Your task to perform on an android device: delete the emails in spam in the gmail app Image 0: 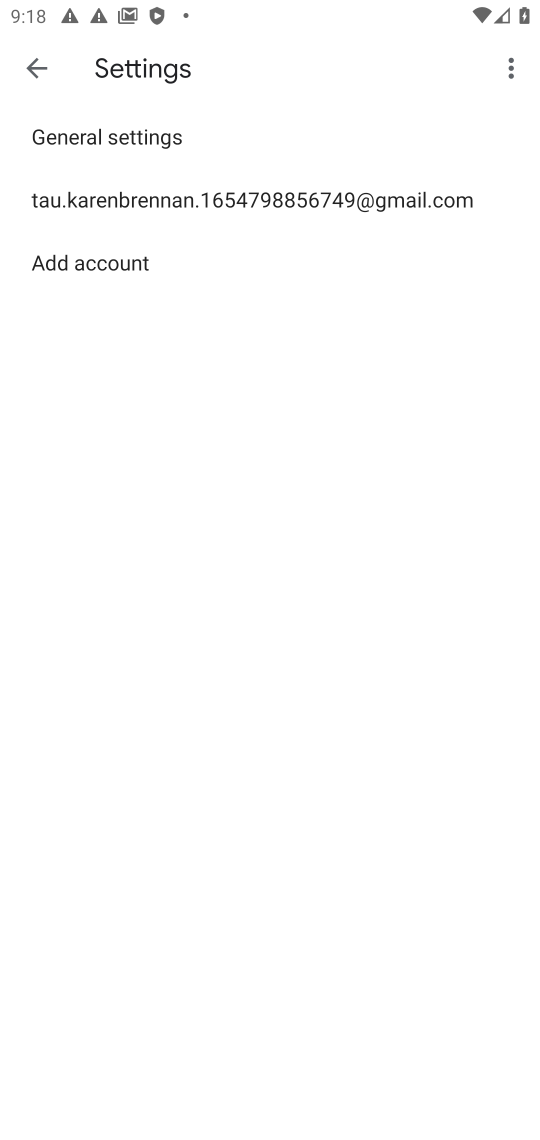
Step 0: press home button
Your task to perform on an android device: delete the emails in spam in the gmail app Image 1: 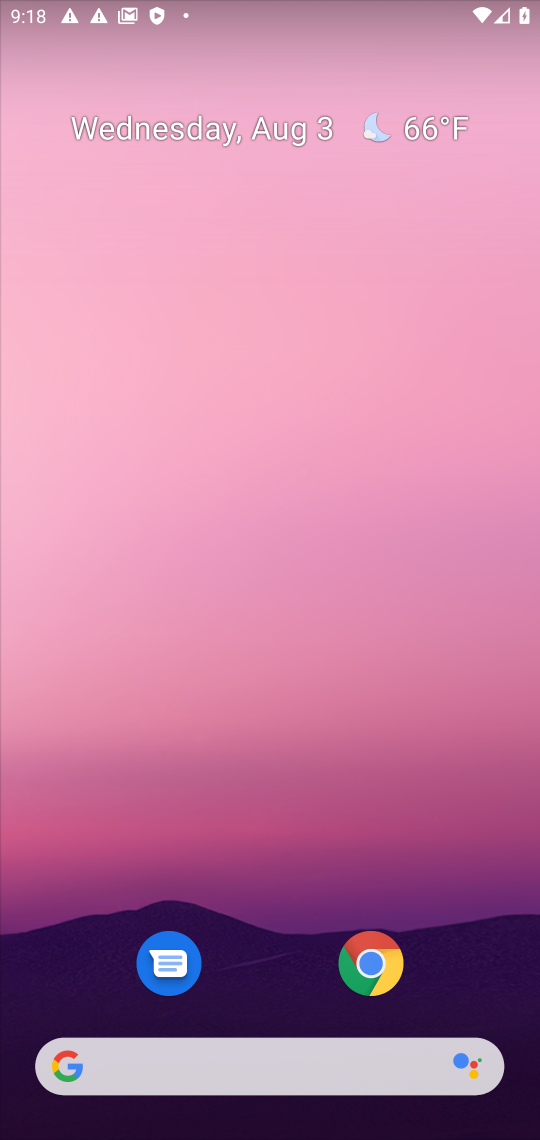
Step 1: drag from (306, 1011) to (289, 254)
Your task to perform on an android device: delete the emails in spam in the gmail app Image 2: 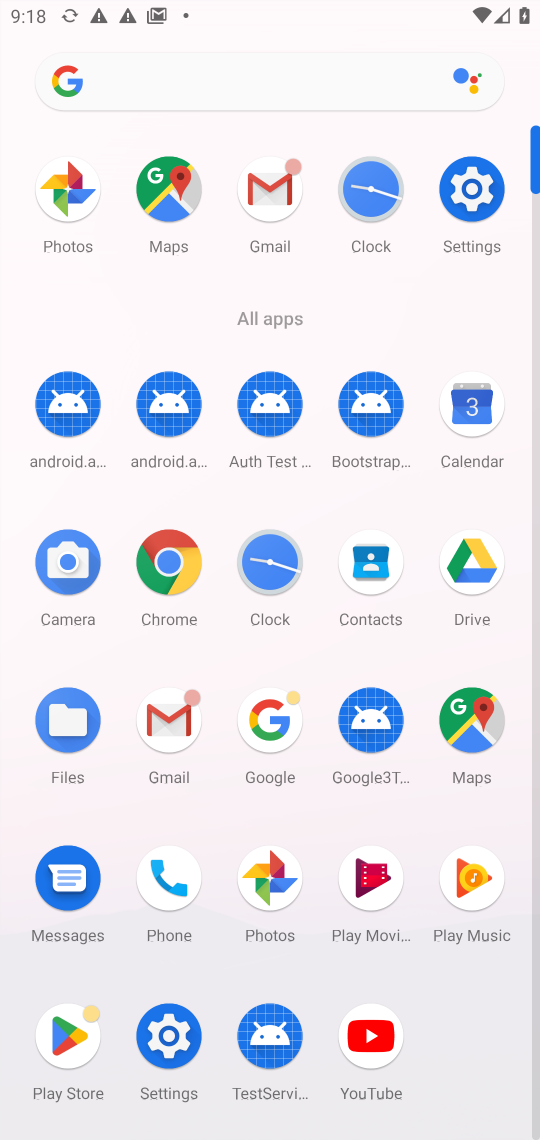
Step 2: click (272, 188)
Your task to perform on an android device: delete the emails in spam in the gmail app Image 3: 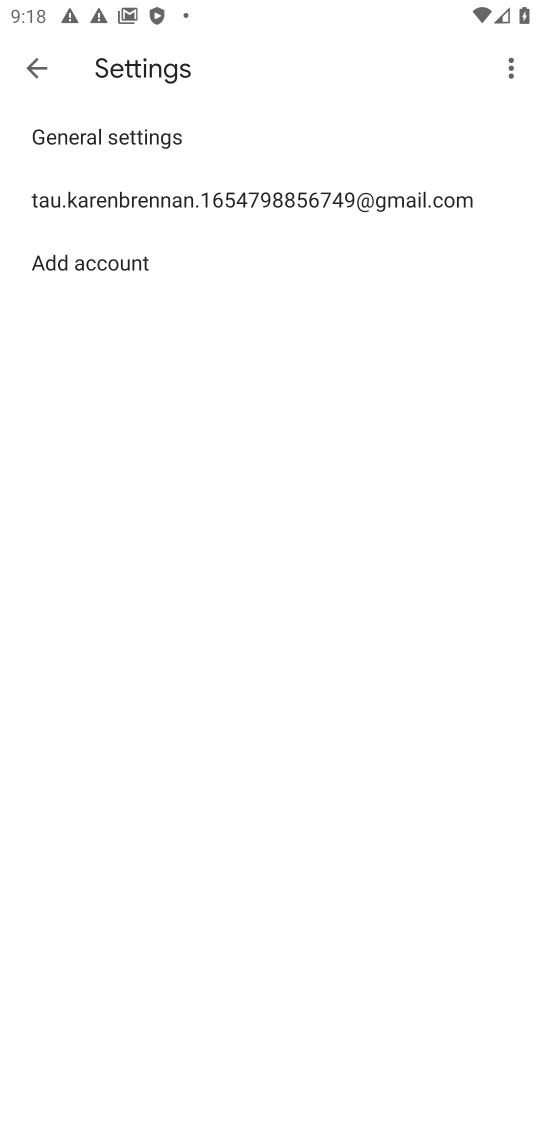
Step 3: click (35, 59)
Your task to perform on an android device: delete the emails in spam in the gmail app Image 4: 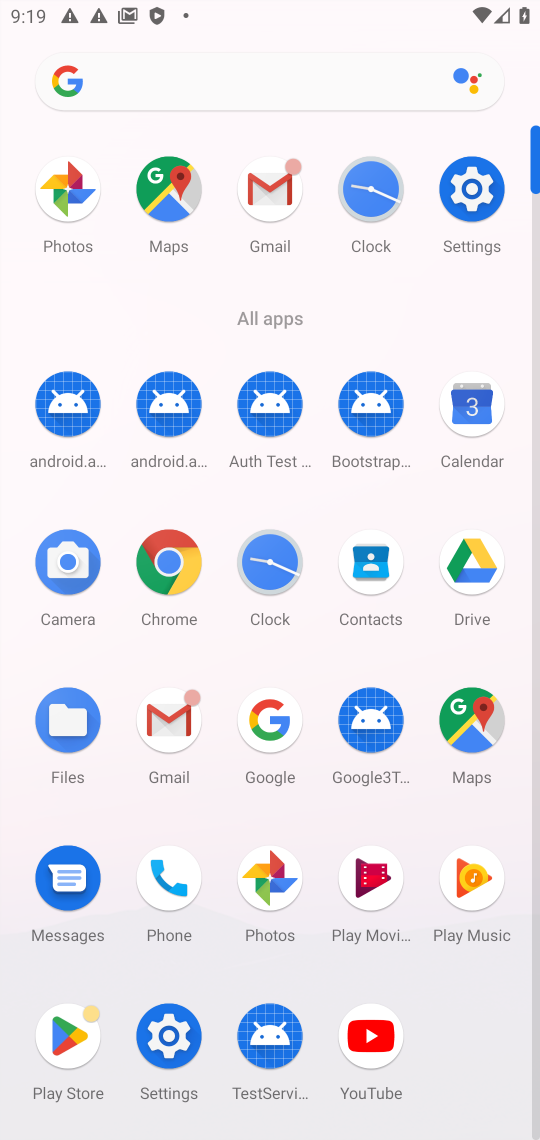
Step 4: click (168, 731)
Your task to perform on an android device: delete the emails in spam in the gmail app Image 5: 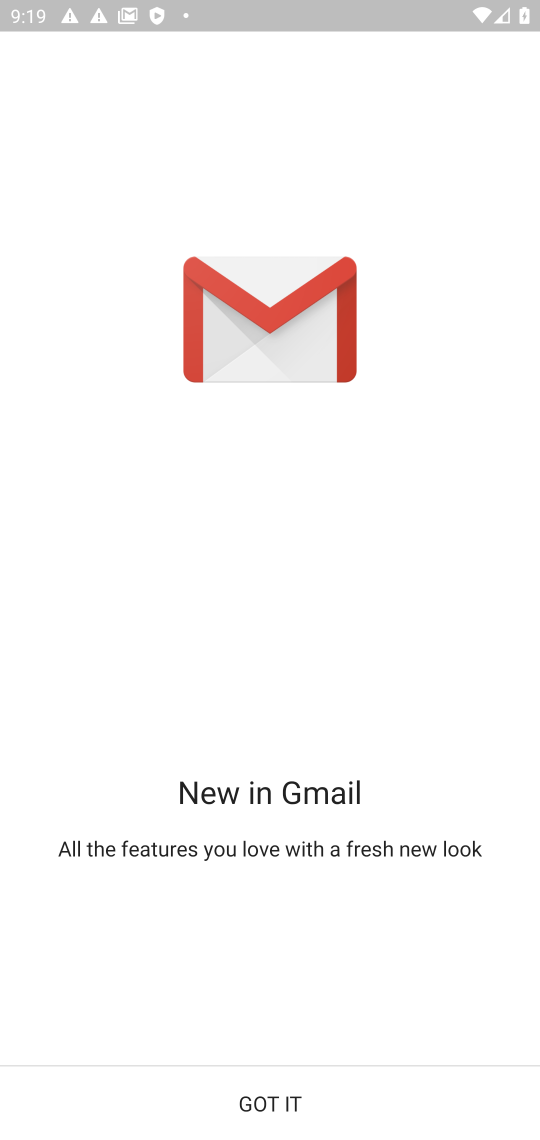
Step 5: click (316, 1117)
Your task to perform on an android device: delete the emails in spam in the gmail app Image 6: 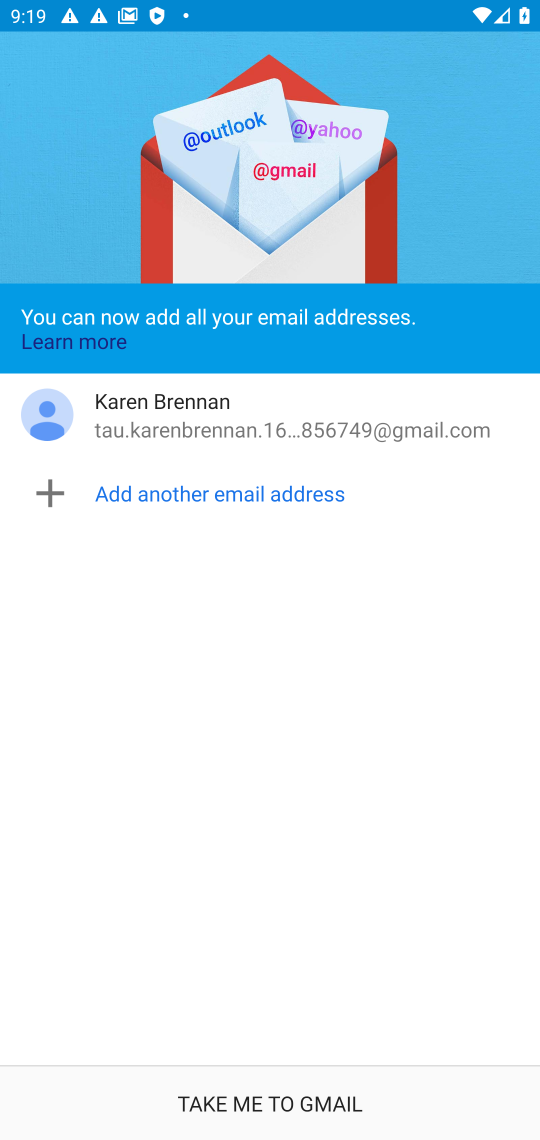
Step 6: click (461, 1126)
Your task to perform on an android device: delete the emails in spam in the gmail app Image 7: 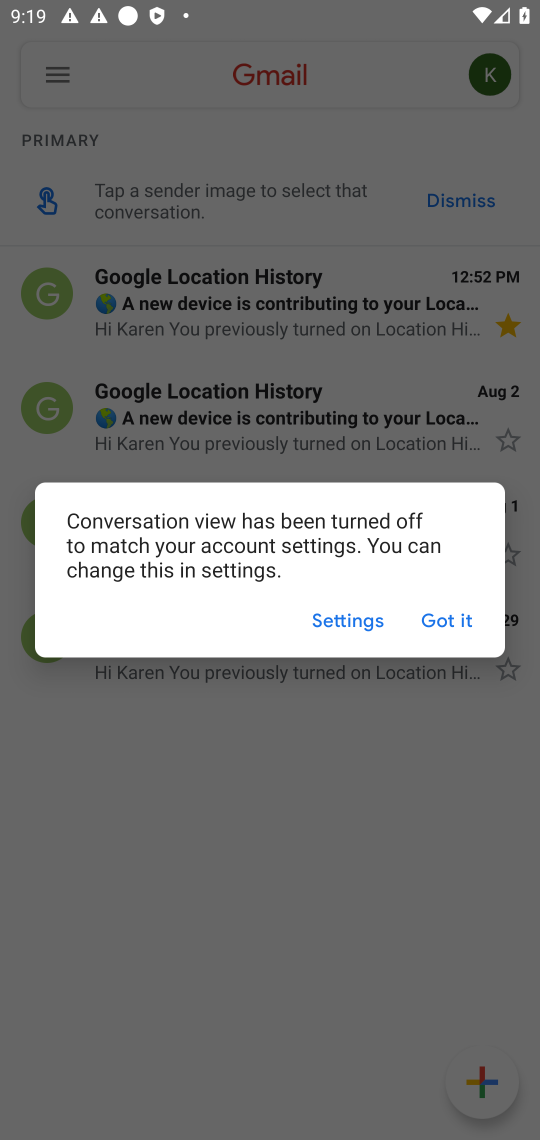
Step 7: click (447, 610)
Your task to perform on an android device: delete the emails in spam in the gmail app Image 8: 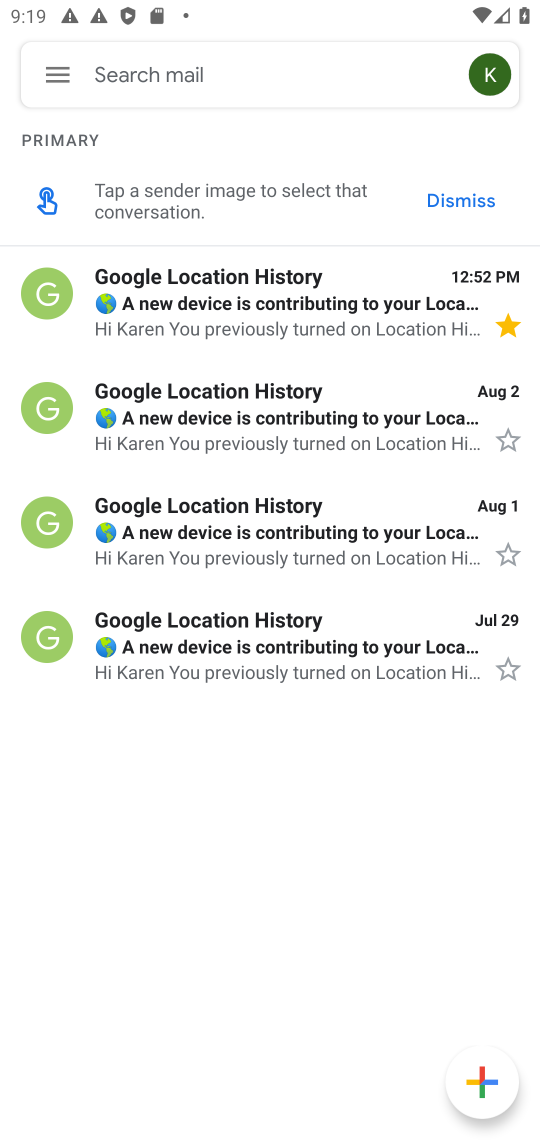
Step 8: click (64, 78)
Your task to perform on an android device: delete the emails in spam in the gmail app Image 9: 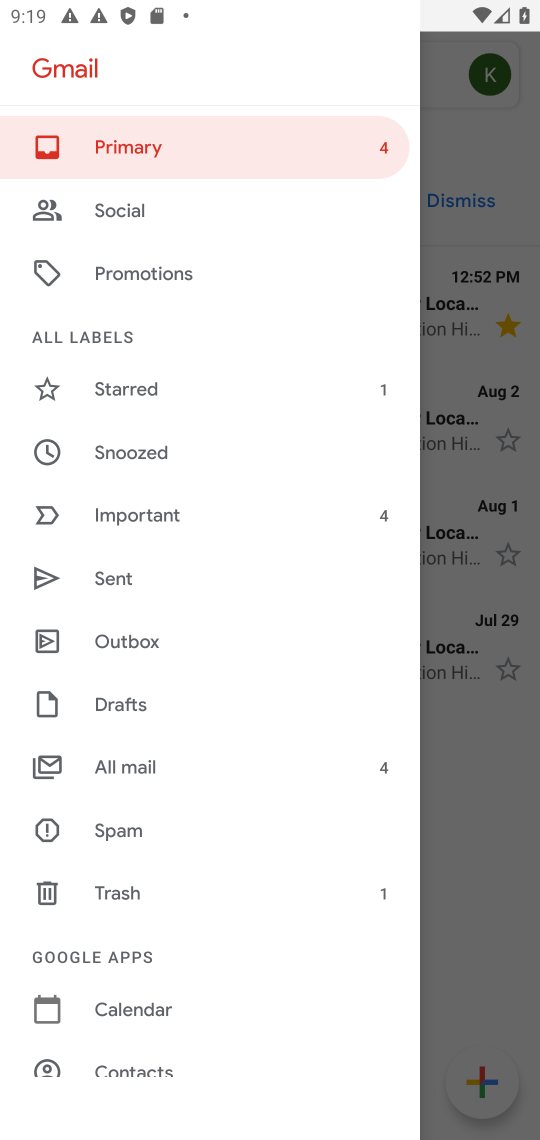
Step 9: click (150, 822)
Your task to perform on an android device: delete the emails in spam in the gmail app Image 10: 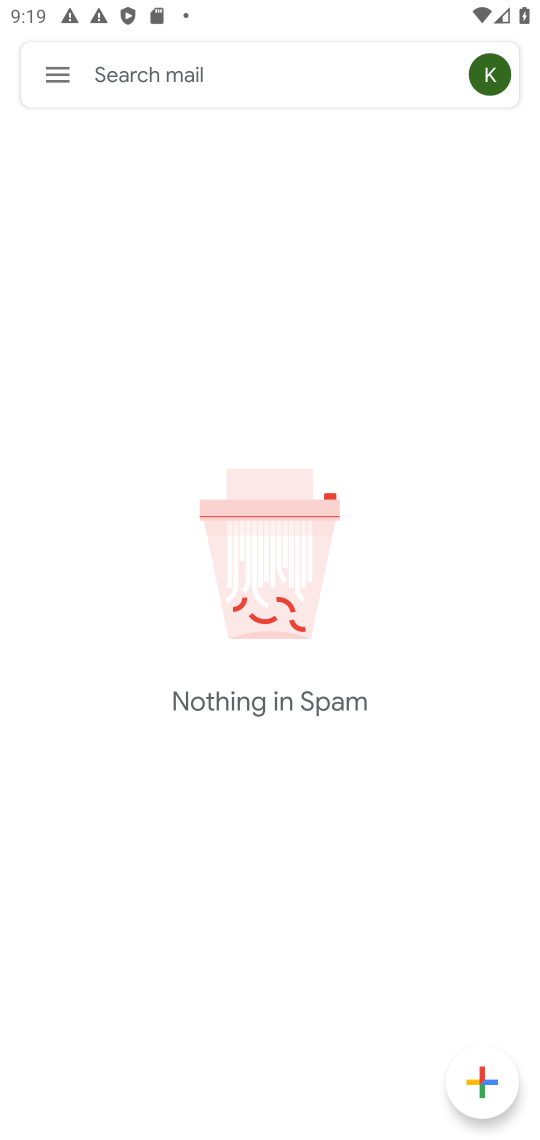
Step 10: task complete